Your task to perform on an android device: change the upload size in google photos Image 0: 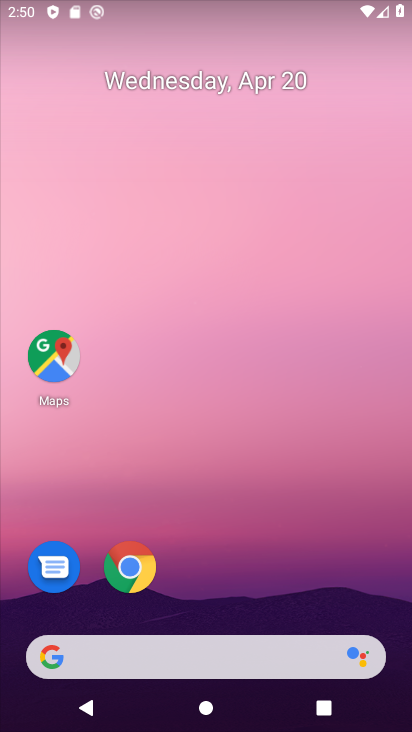
Step 0: drag from (198, 605) to (332, 10)
Your task to perform on an android device: change the upload size in google photos Image 1: 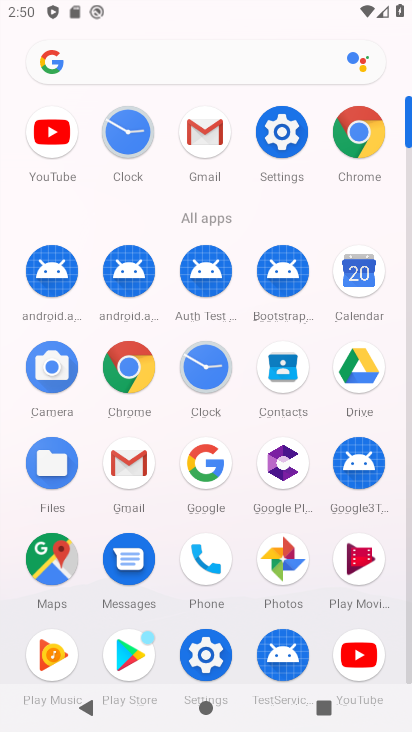
Step 1: click (277, 575)
Your task to perform on an android device: change the upload size in google photos Image 2: 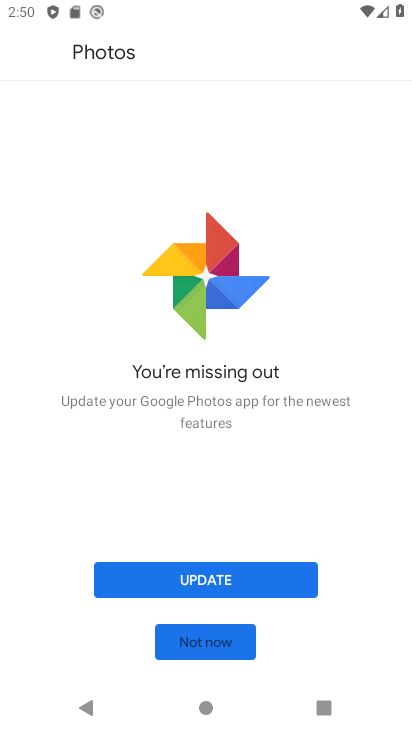
Step 2: click (212, 643)
Your task to perform on an android device: change the upload size in google photos Image 3: 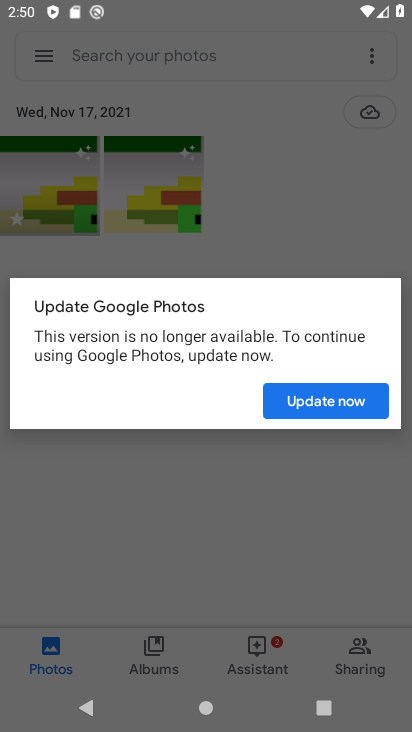
Step 3: click (337, 395)
Your task to perform on an android device: change the upload size in google photos Image 4: 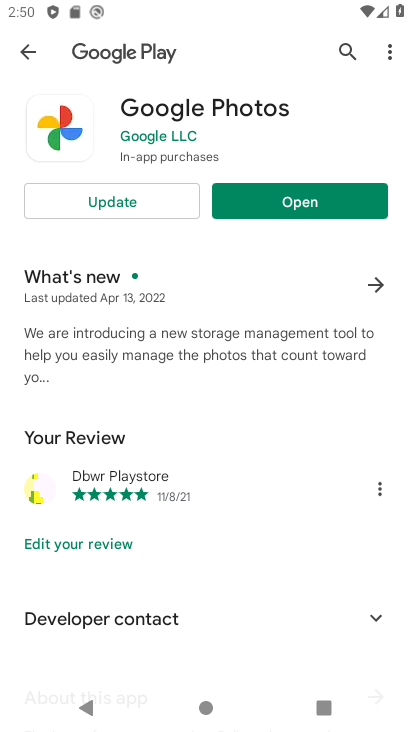
Step 4: click (290, 209)
Your task to perform on an android device: change the upload size in google photos Image 5: 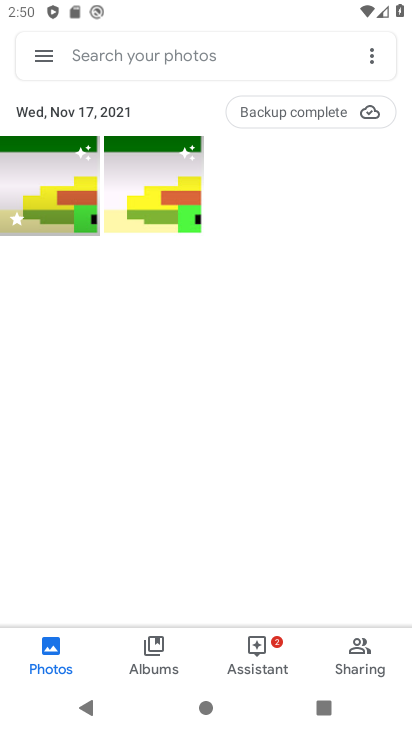
Step 5: click (41, 52)
Your task to perform on an android device: change the upload size in google photos Image 6: 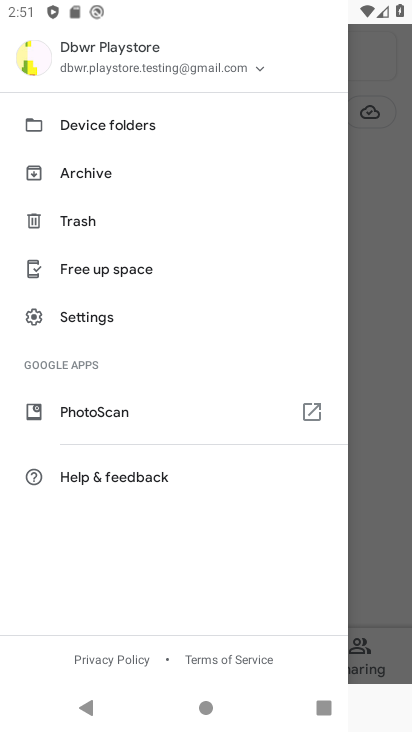
Step 6: click (96, 316)
Your task to perform on an android device: change the upload size in google photos Image 7: 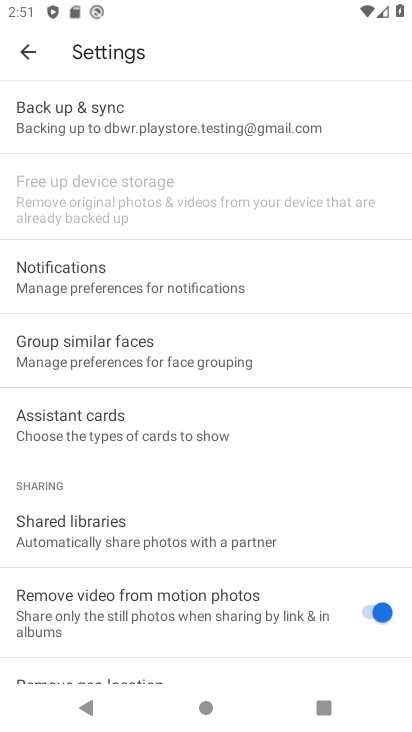
Step 7: click (138, 122)
Your task to perform on an android device: change the upload size in google photos Image 8: 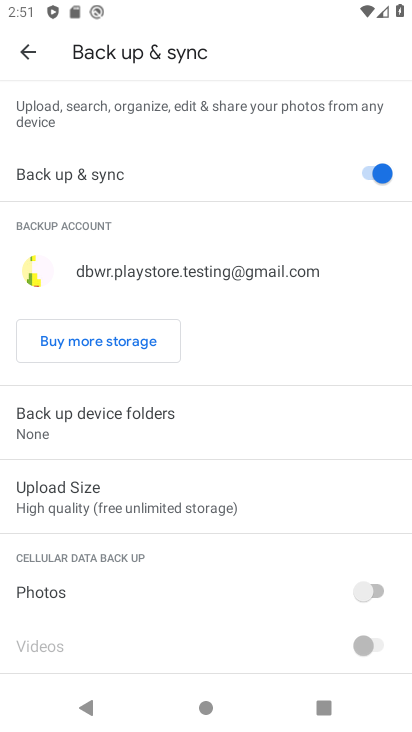
Step 8: drag from (168, 496) to (234, 207)
Your task to perform on an android device: change the upload size in google photos Image 9: 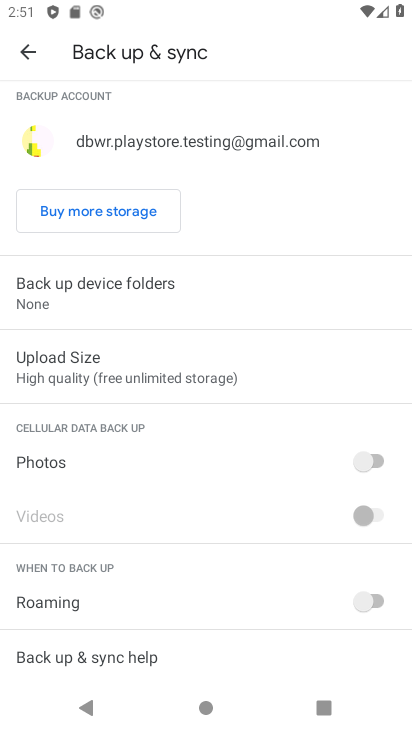
Step 9: click (80, 368)
Your task to perform on an android device: change the upload size in google photos Image 10: 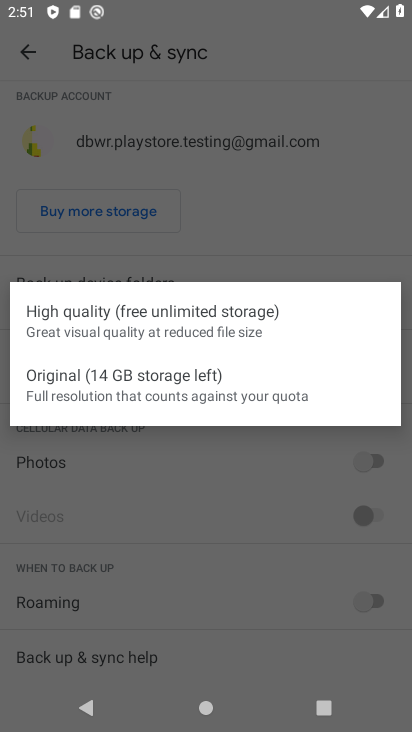
Step 10: click (75, 393)
Your task to perform on an android device: change the upload size in google photos Image 11: 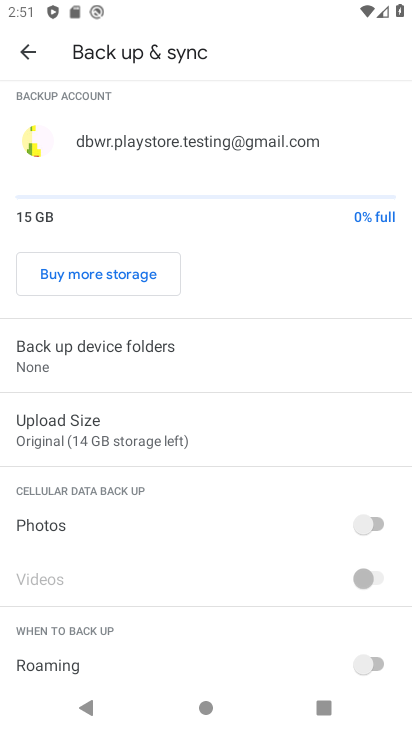
Step 11: task complete